Your task to perform on an android device: open chrome privacy settings Image 0: 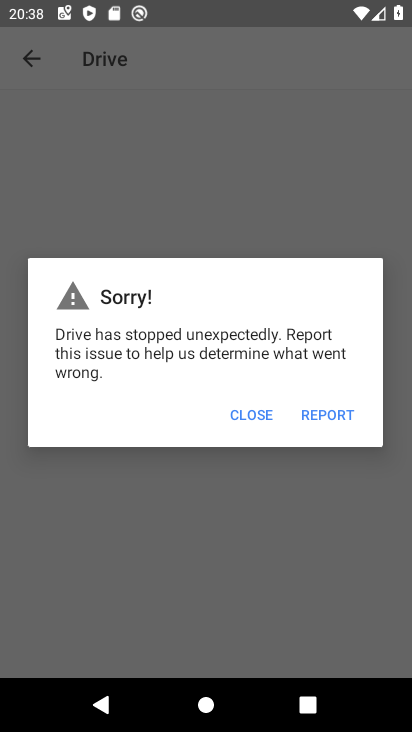
Step 0: press home button
Your task to perform on an android device: open chrome privacy settings Image 1: 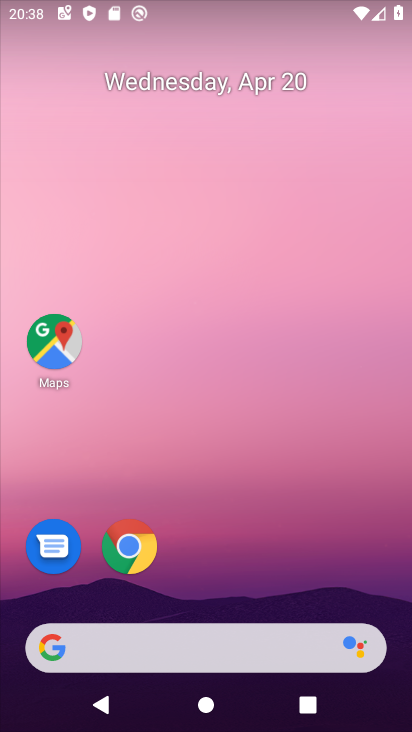
Step 1: click (150, 550)
Your task to perform on an android device: open chrome privacy settings Image 2: 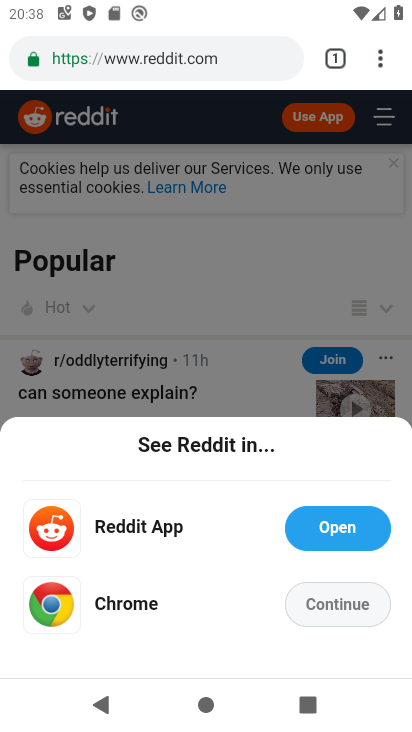
Step 2: click (385, 68)
Your task to perform on an android device: open chrome privacy settings Image 3: 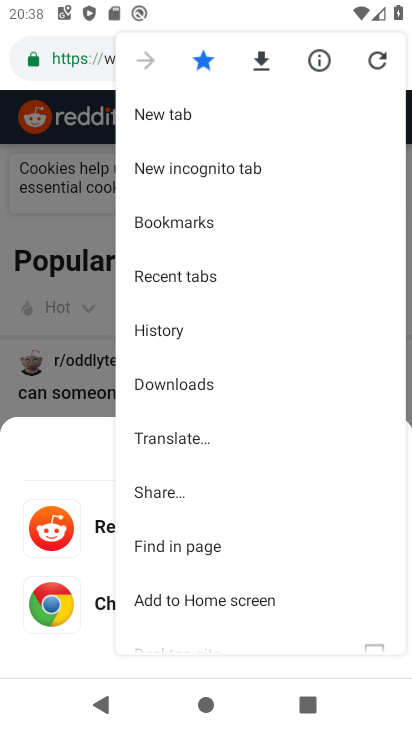
Step 3: drag from (260, 566) to (228, 208)
Your task to perform on an android device: open chrome privacy settings Image 4: 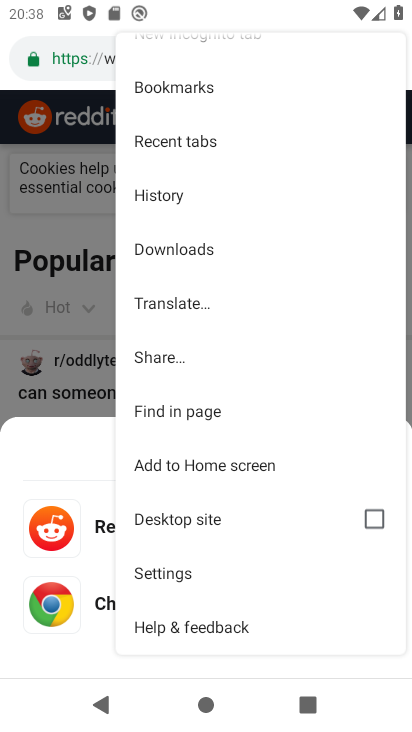
Step 4: click (201, 578)
Your task to perform on an android device: open chrome privacy settings Image 5: 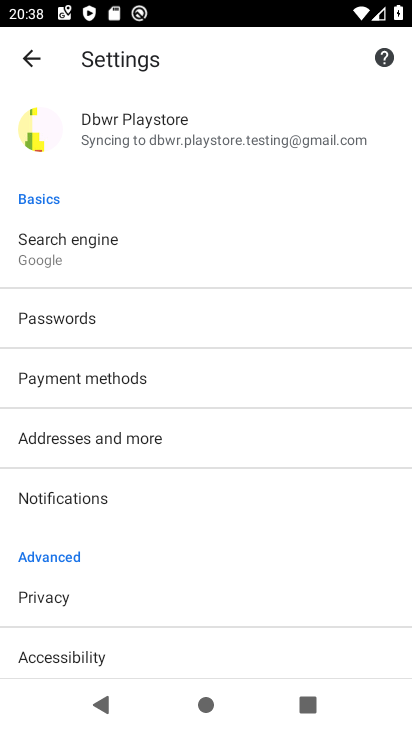
Step 5: click (33, 608)
Your task to perform on an android device: open chrome privacy settings Image 6: 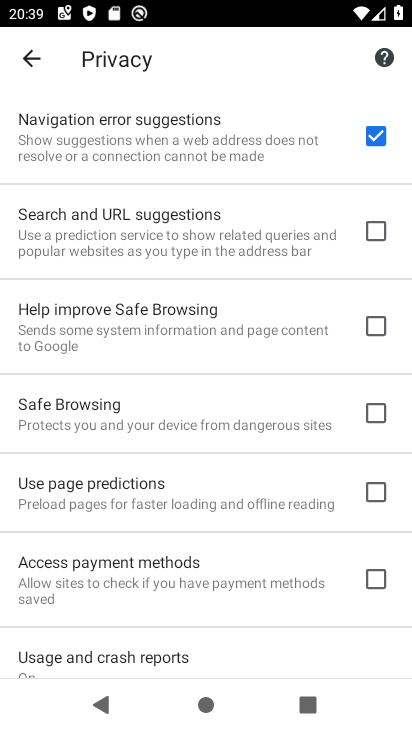
Step 6: task complete